Your task to perform on an android device: Open Yahoo.com Image 0: 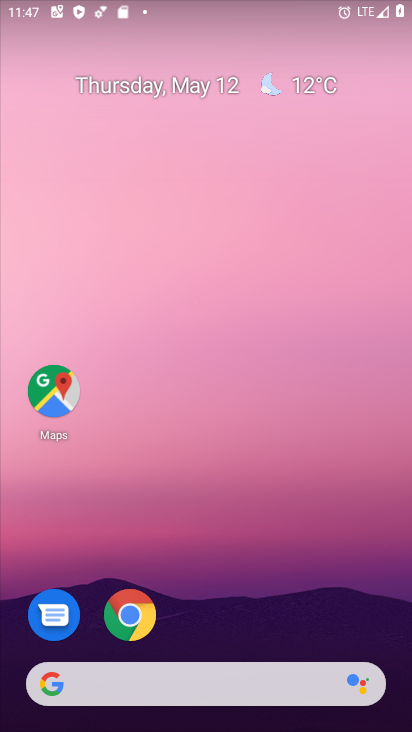
Step 0: click (288, 685)
Your task to perform on an android device: Open Yahoo.com Image 1: 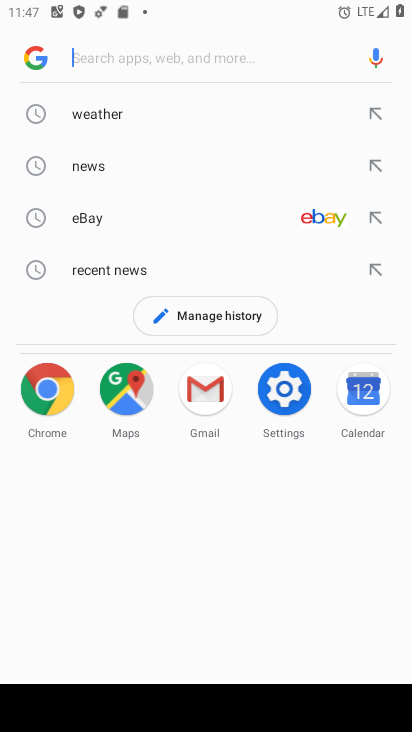
Step 1: type "yahoo.com"
Your task to perform on an android device: Open Yahoo.com Image 2: 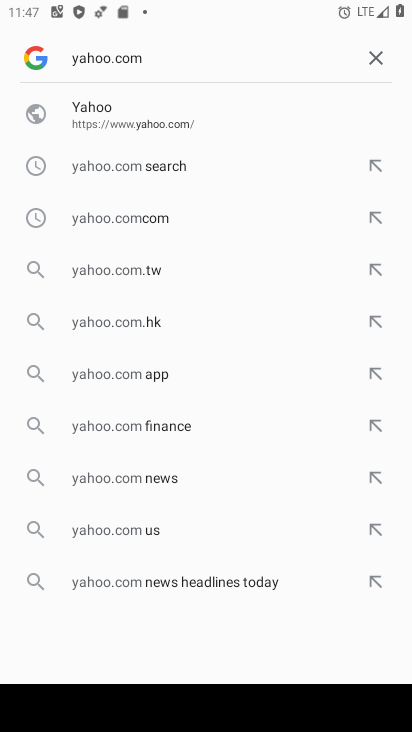
Step 2: click (101, 107)
Your task to perform on an android device: Open Yahoo.com Image 3: 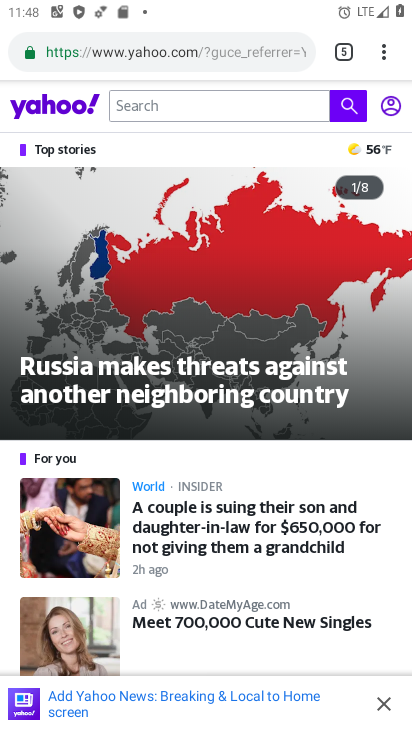
Step 3: task complete